Your task to perform on an android device: turn off smart reply in the gmail app Image 0: 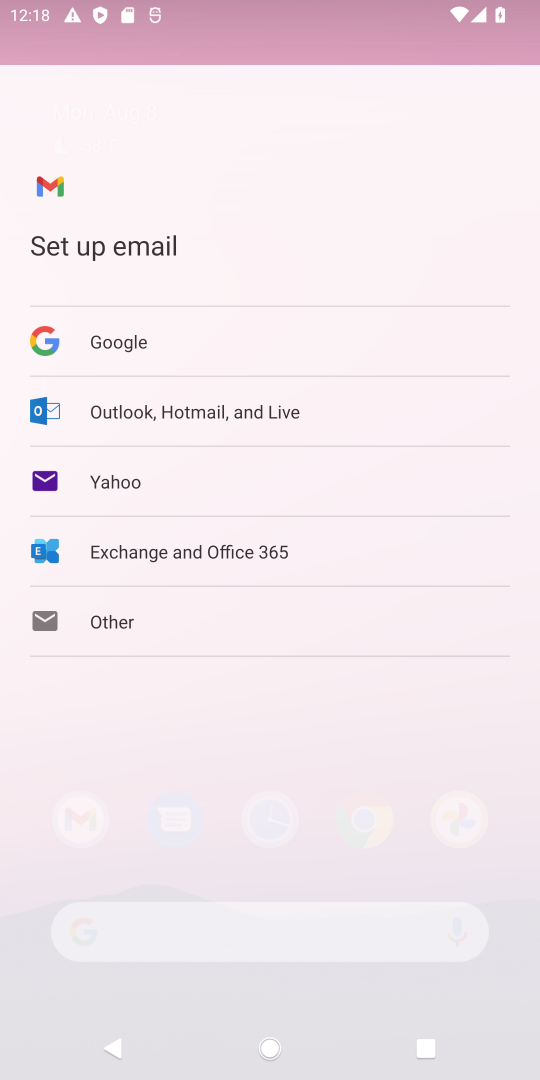
Step 0: press home button
Your task to perform on an android device: turn off smart reply in the gmail app Image 1: 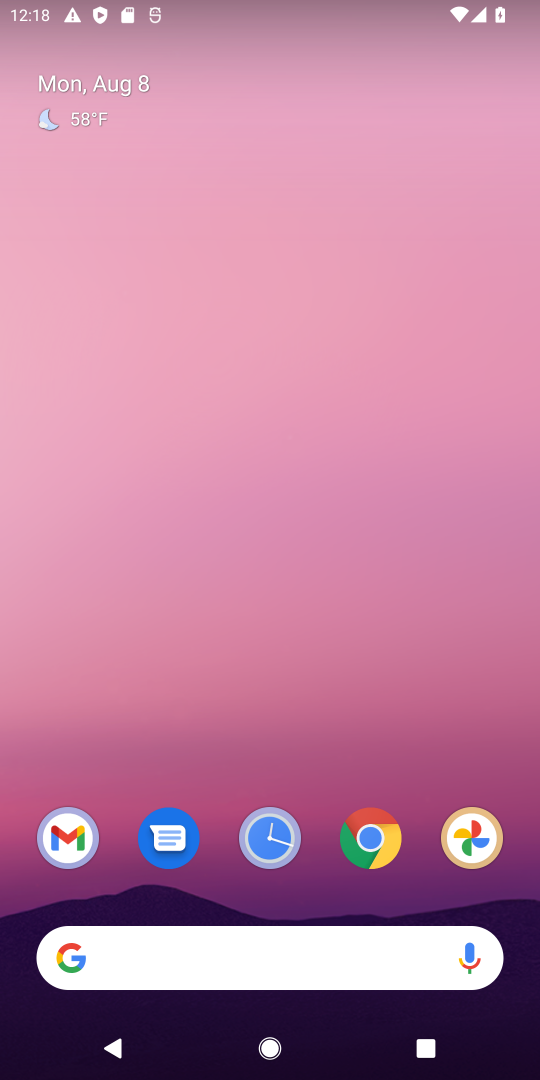
Step 1: click (68, 830)
Your task to perform on an android device: turn off smart reply in the gmail app Image 2: 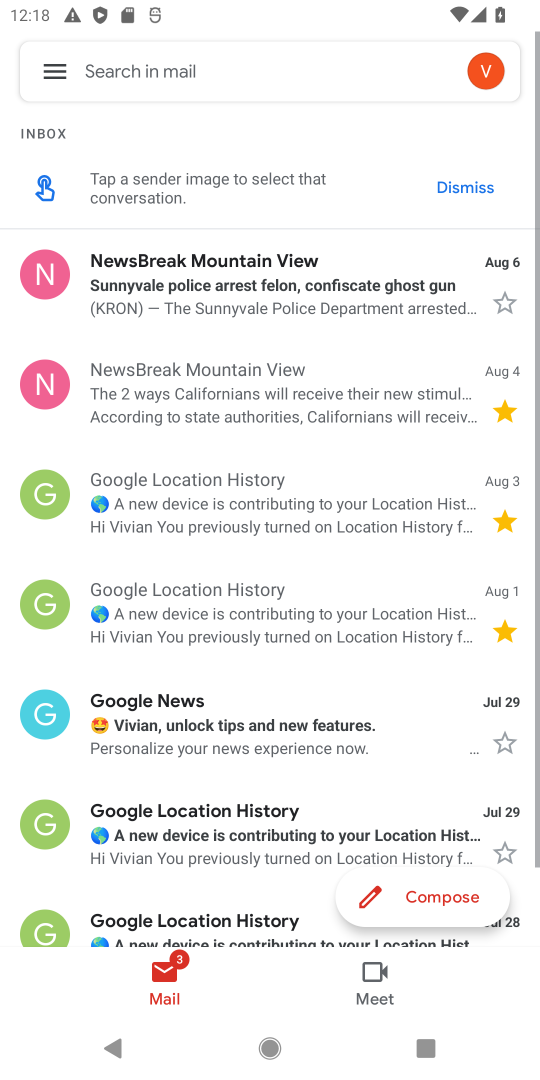
Step 2: click (58, 71)
Your task to perform on an android device: turn off smart reply in the gmail app Image 3: 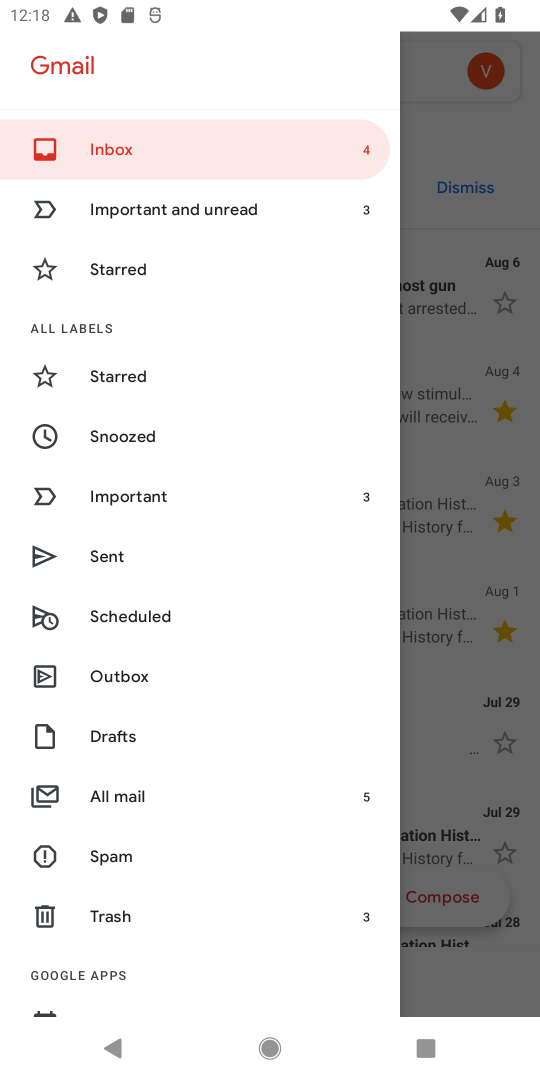
Step 3: drag from (245, 883) to (167, 61)
Your task to perform on an android device: turn off smart reply in the gmail app Image 4: 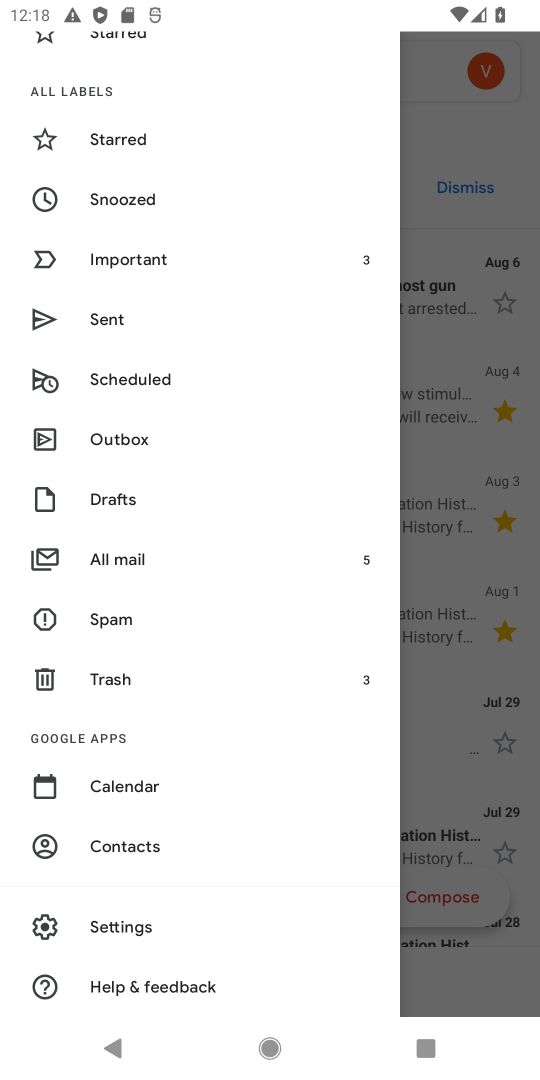
Step 4: click (104, 933)
Your task to perform on an android device: turn off smart reply in the gmail app Image 5: 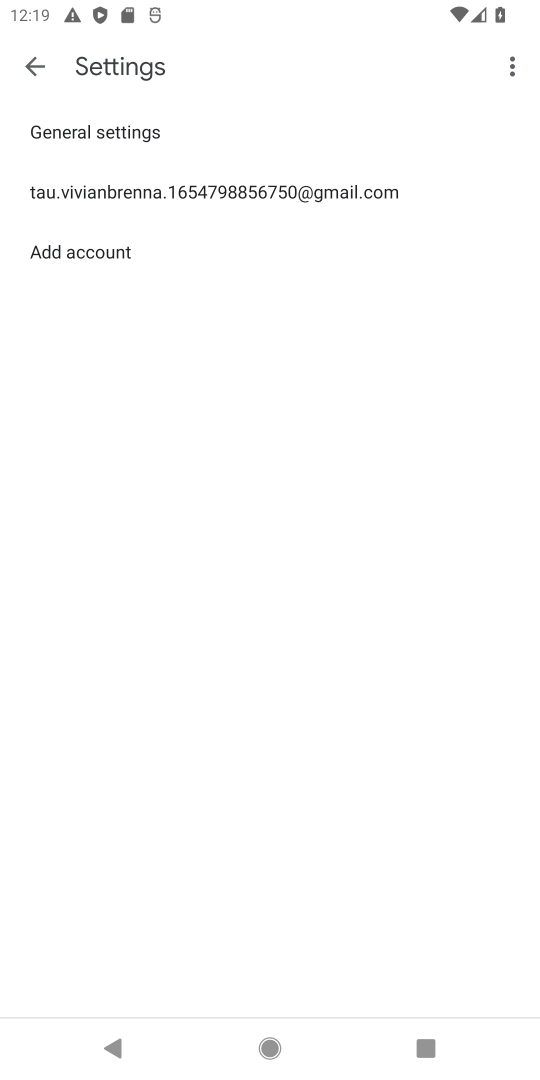
Step 5: click (172, 194)
Your task to perform on an android device: turn off smart reply in the gmail app Image 6: 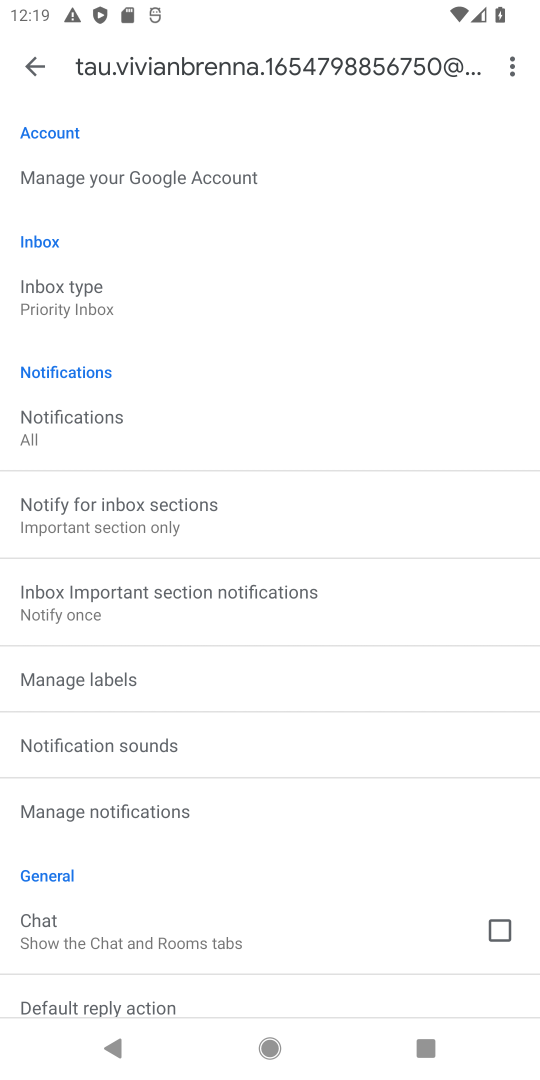
Step 6: drag from (375, 895) to (415, 70)
Your task to perform on an android device: turn off smart reply in the gmail app Image 7: 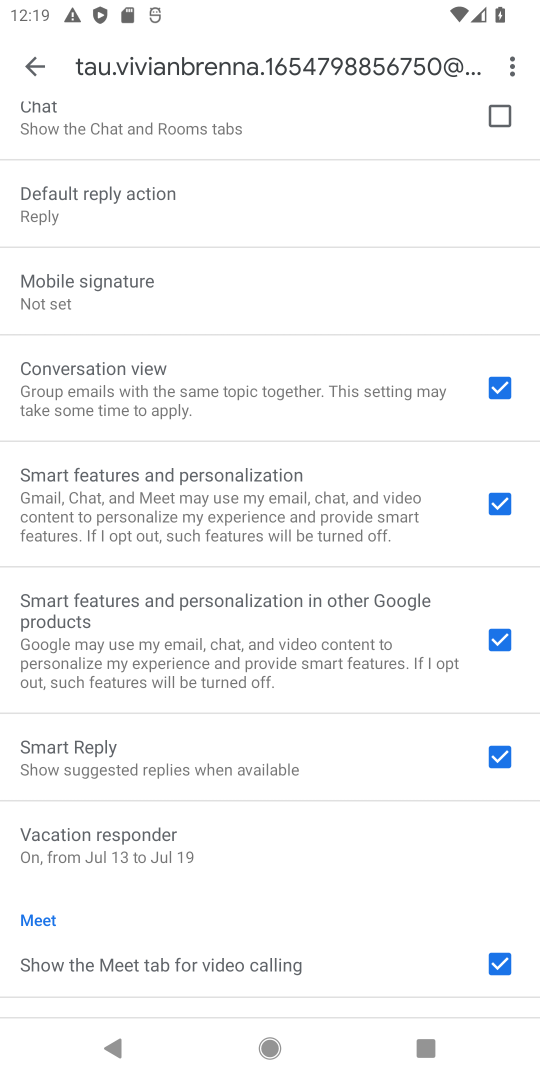
Step 7: click (503, 750)
Your task to perform on an android device: turn off smart reply in the gmail app Image 8: 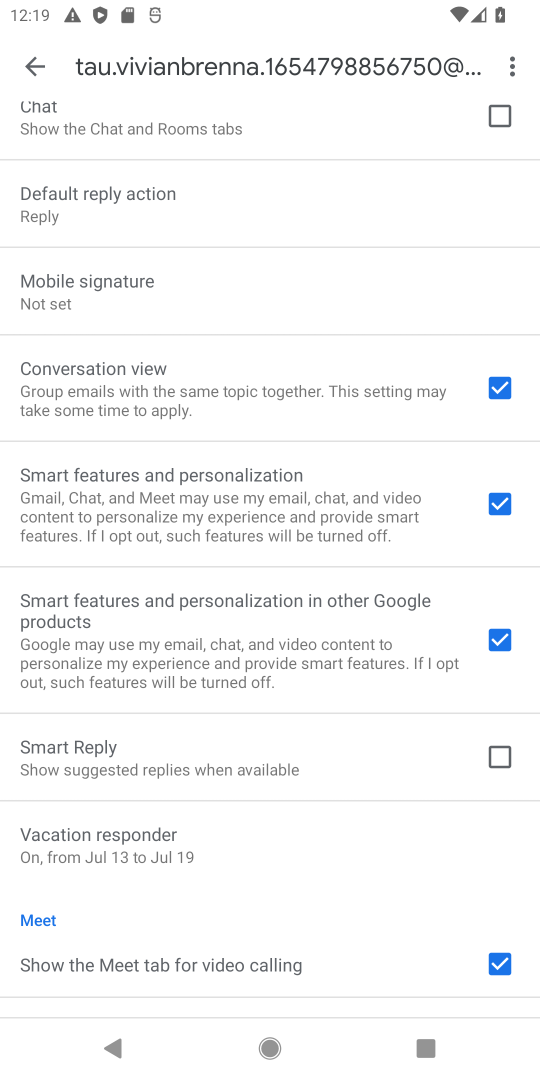
Step 8: task complete